Your task to perform on an android device: turn on wifi Image 0: 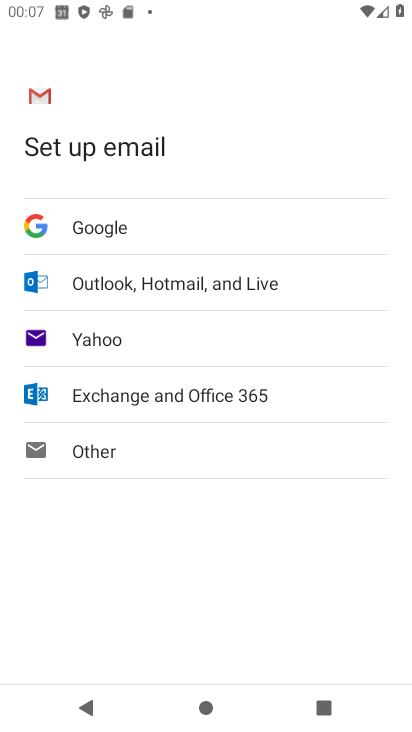
Step 0: press back button
Your task to perform on an android device: turn on wifi Image 1: 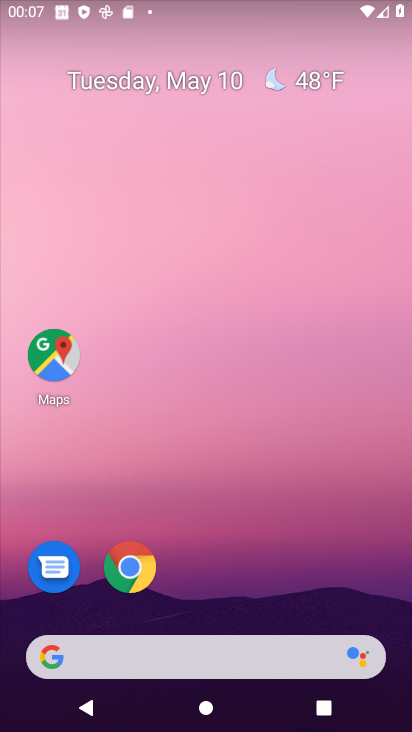
Step 1: drag from (252, 549) to (228, 38)
Your task to perform on an android device: turn on wifi Image 2: 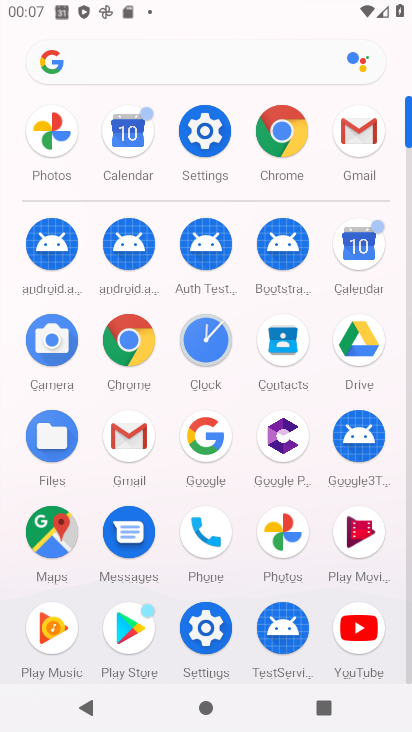
Step 2: click (206, 628)
Your task to perform on an android device: turn on wifi Image 3: 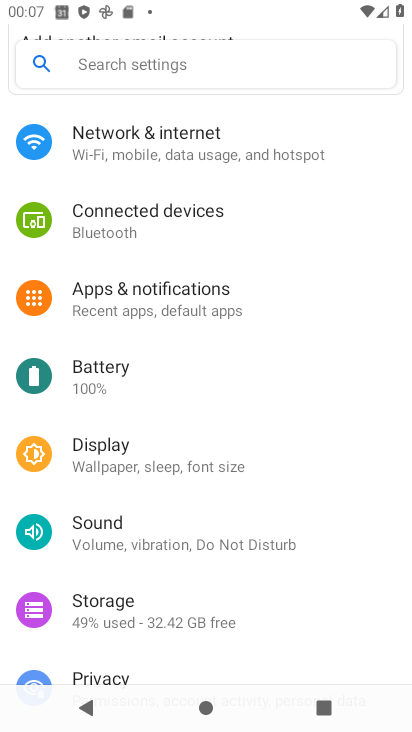
Step 3: click (199, 149)
Your task to perform on an android device: turn on wifi Image 4: 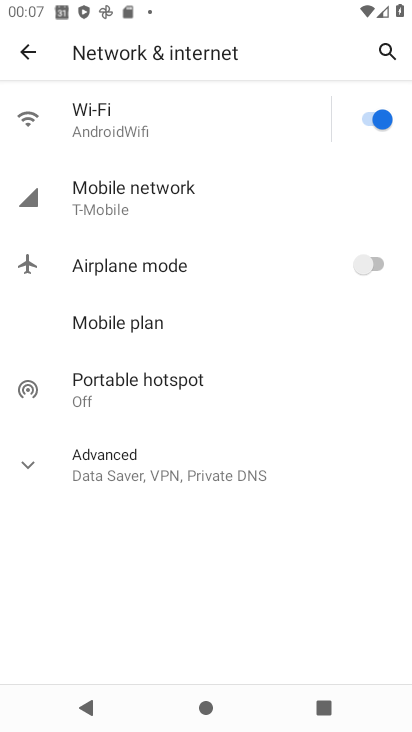
Step 4: task complete